Your task to perform on an android device: Go to Yahoo.com Image 0: 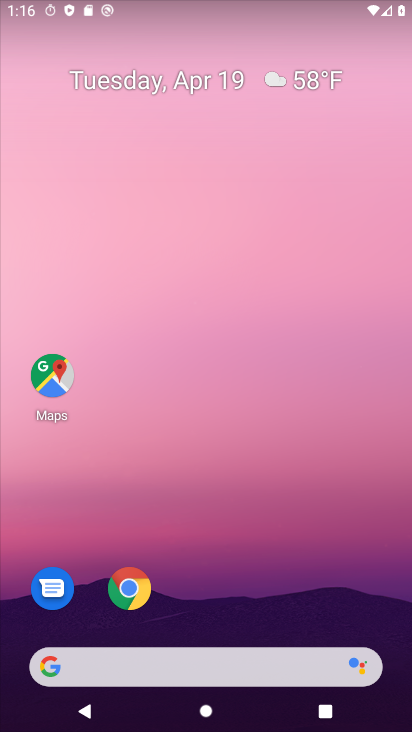
Step 0: click (156, 660)
Your task to perform on an android device: Go to Yahoo.com Image 1: 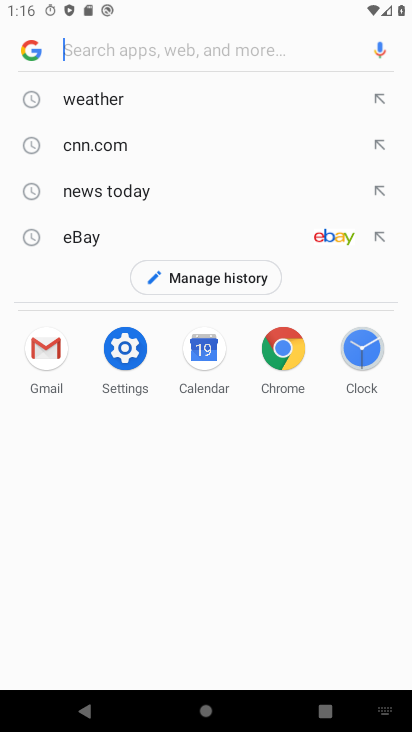
Step 1: type "Yahoo.com"
Your task to perform on an android device: Go to Yahoo.com Image 2: 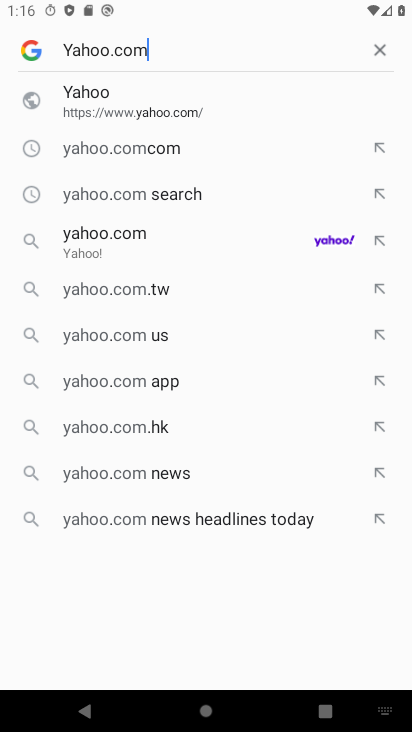
Step 2: click (188, 101)
Your task to perform on an android device: Go to Yahoo.com Image 3: 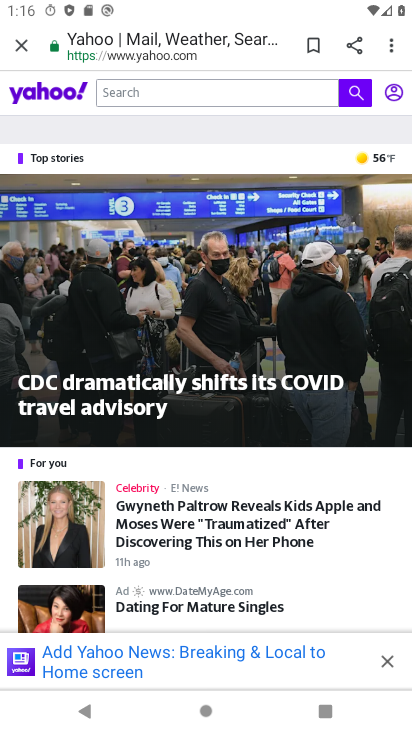
Step 3: task complete